Your task to perform on an android device: delete a single message in the gmail app Image 0: 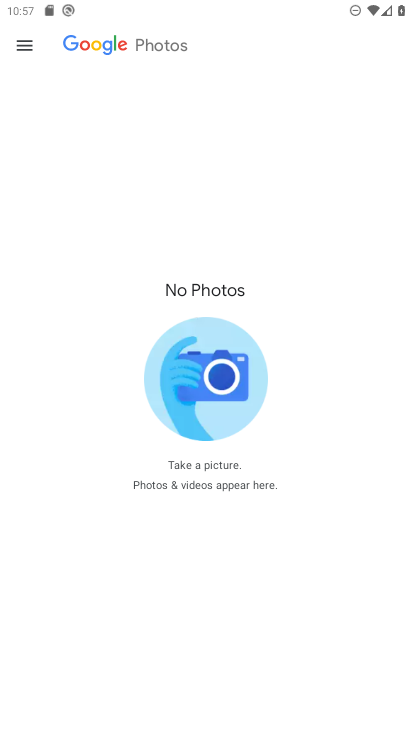
Step 0: press home button
Your task to perform on an android device: delete a single message in the gmail app Image 1: 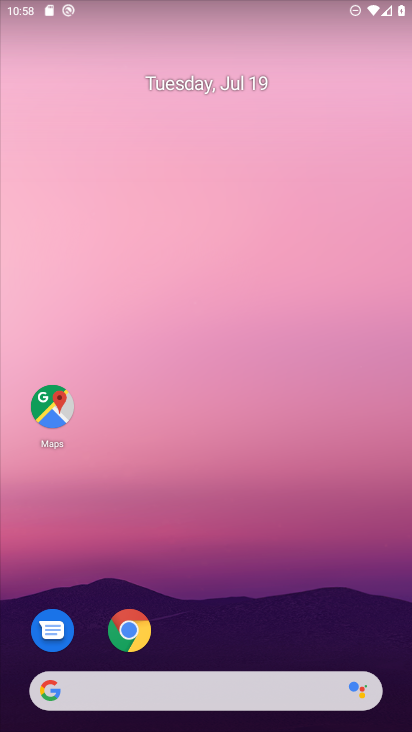
Step 1: drag from (195, 634) to (177, 45)
Your task to perform on an android device: delete a single message in the gmail app Image 2: 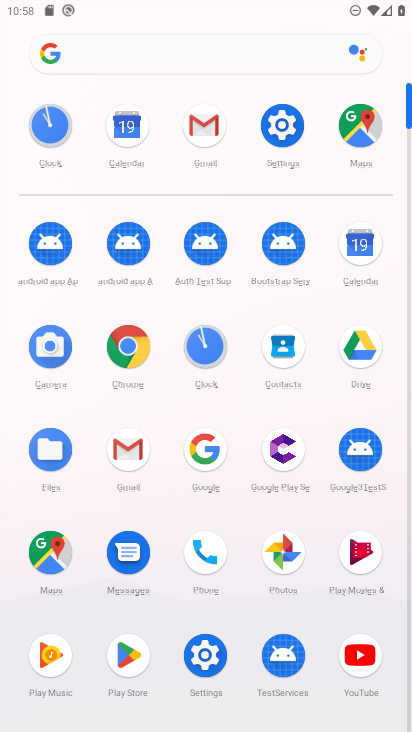
Step 2: click (197, 166)
Your task to perform on an android device: delete a single message in the gmail app Image 3: 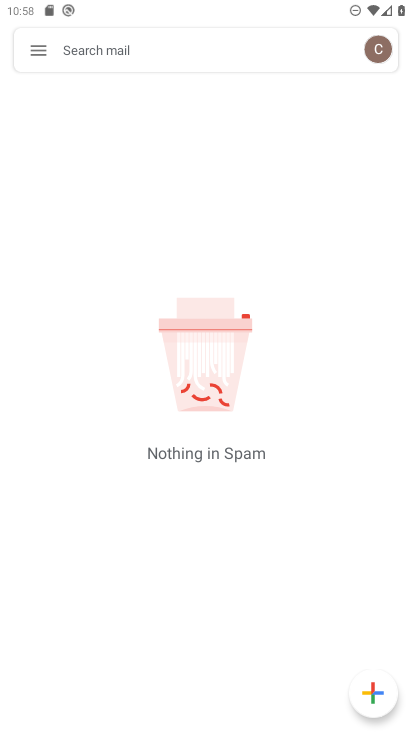
Step 3: click (37, 53)
Your task to perform on an android device: delete a single message in the gmail app Image 4: 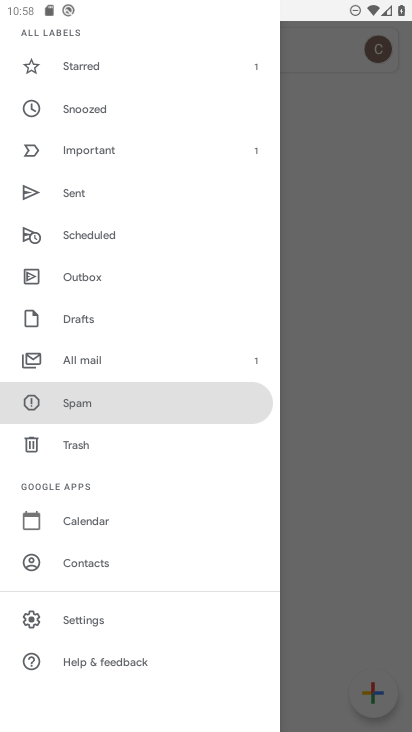
Step 4: click (99, 369)
Your task to perform on an android device: delete a single message in the gmail app Image 5: 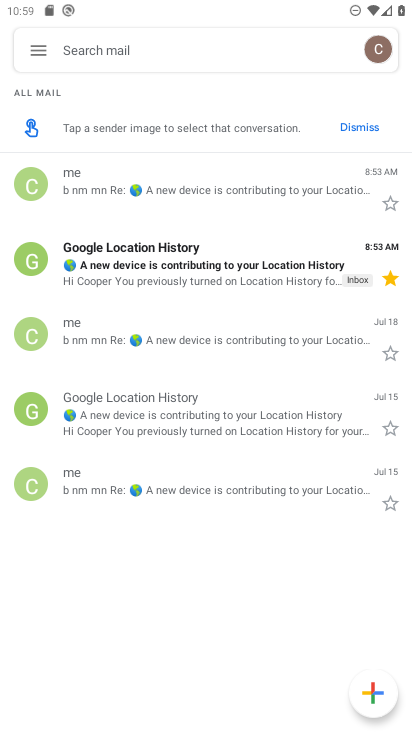
Step 5: click (176, 193)
Your task to perform on an android device: delete a single message in the gmail app Image 6: 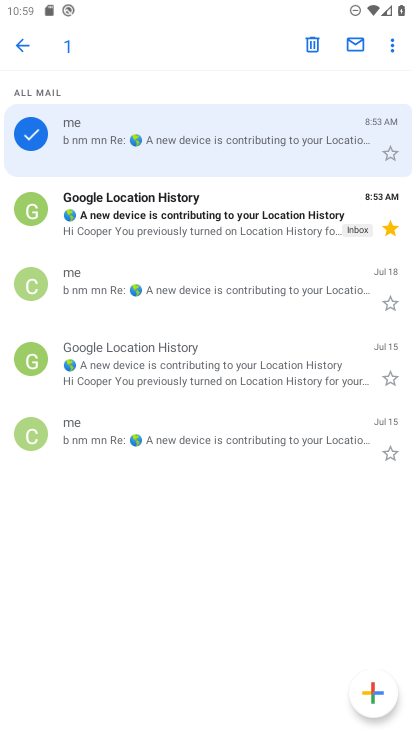
Step 6: click (176, 193)
Your task to perform on an android device: delete a single message in the gmail app Image 7: 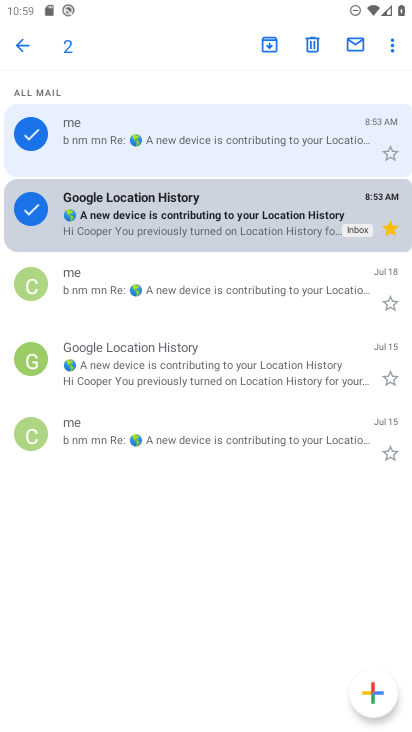
Step 7: click (176, 193)
Your task to perform on an android device: delete a single message in the gmail app Image 8: 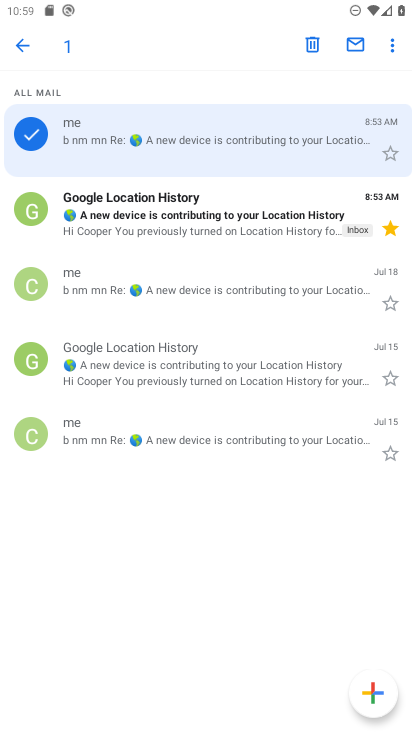
Step 8: click (317, 45)
Your task to perform on an android device: delete a single message in the gmail app Image 9: 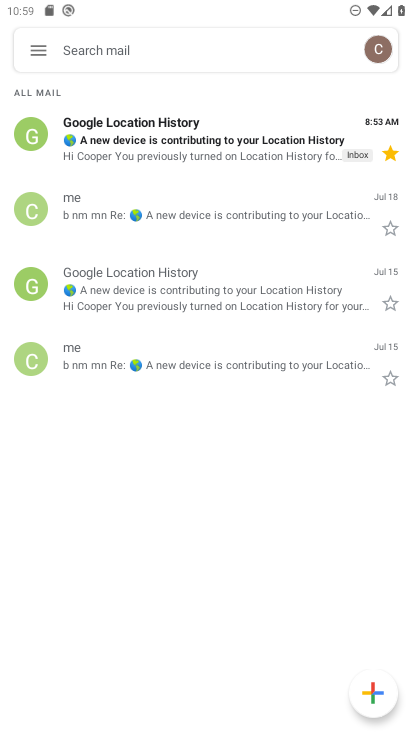
Step 9: task complete